Your task to perform on an android device: What's the weather? Image 0: 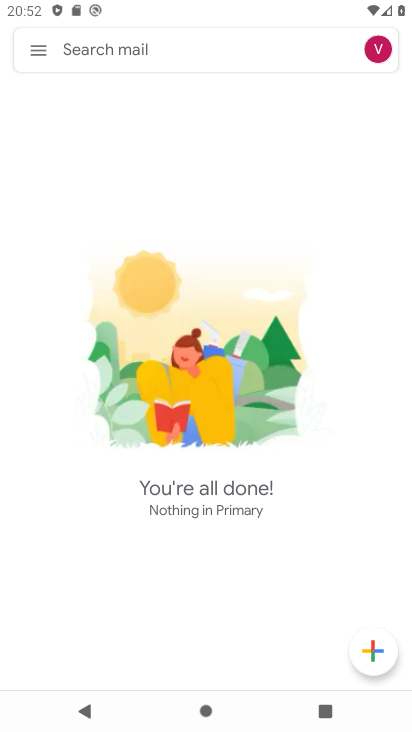
Step 0: press home button
Your task to perform on an android device: What's the weather? Image 1: 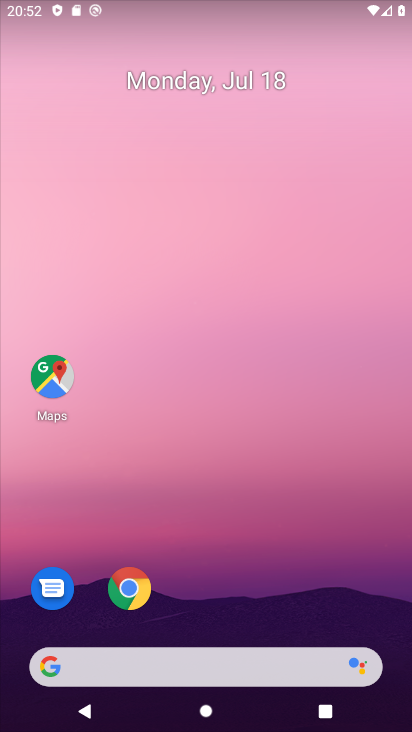
Step 1: click (148, 664)
Your task to perform on an android device: What's the weather? Image 2: 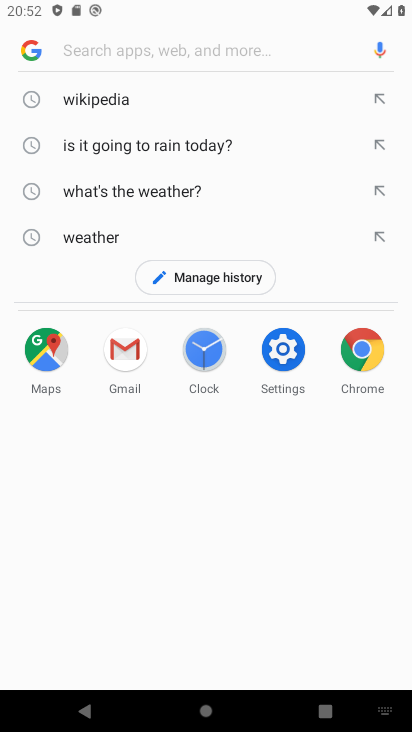
Step 2: click (96, 240)
Your task to perform on an android device: What's the weather? Image 3: 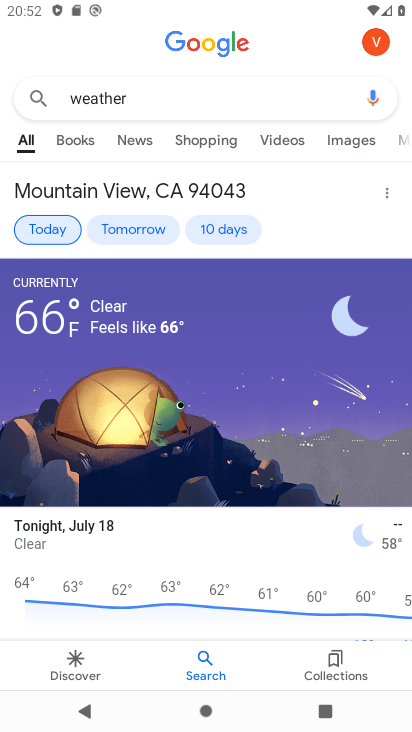
Step 3: task complete